Your task to perform on an android device: What's the weather going to be this weekend? Image 0: 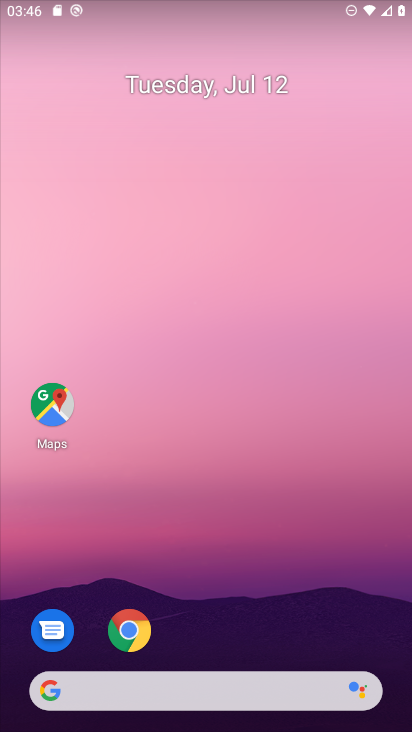
Step 0: drag from (15, 271) to (405, 254)
Your task to perform on an android device: What's the weather going to be this weekend? Image 1: 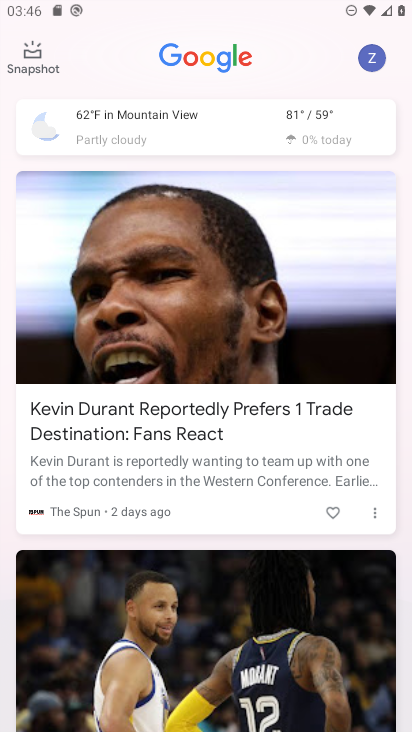
Step 1: click (313, 118)
Your task to perform on an android device: What's the weather going to be this weekend? Image 2: 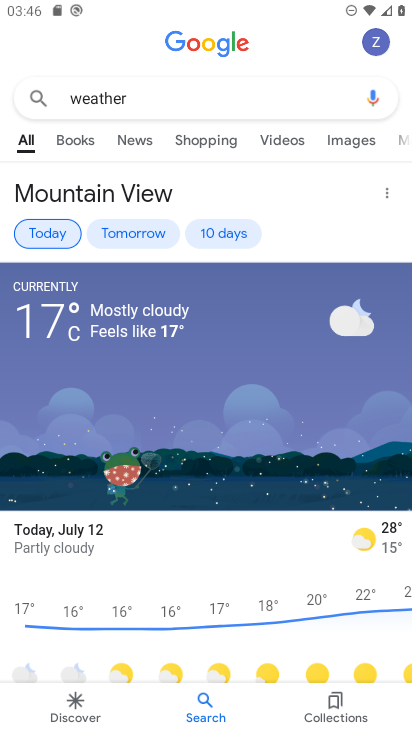
Step 2: click (224, 230)
Your task to perform on an android device: What's the weather going to be this weekend? Image 3: 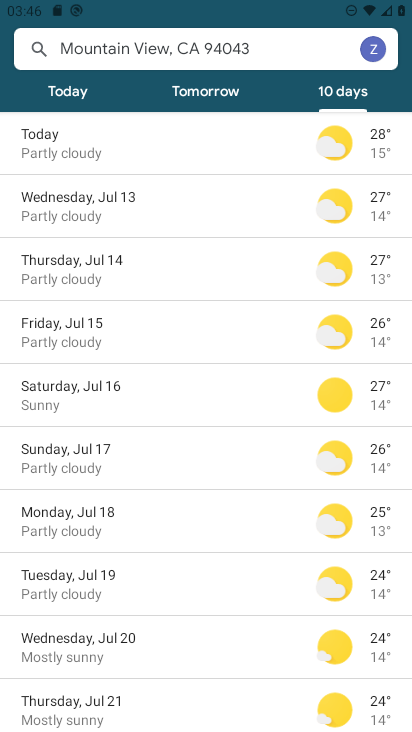
Step 3: task complete